Your task to perform on an android device: open app "DoorDash - Food Delivery" Image 0: 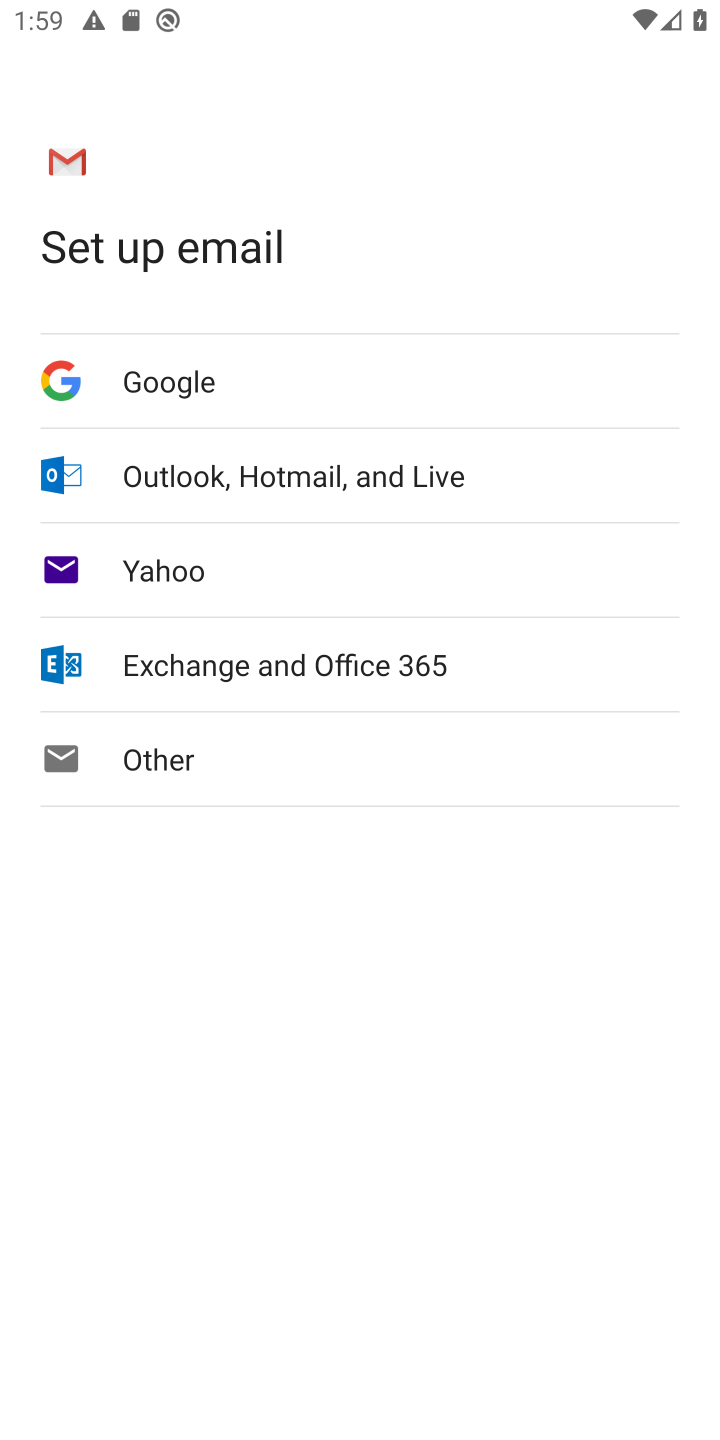
Step 0: press home button
Your task to perform on an android device: open app "DoorDash - Food Delivery" Image 1: 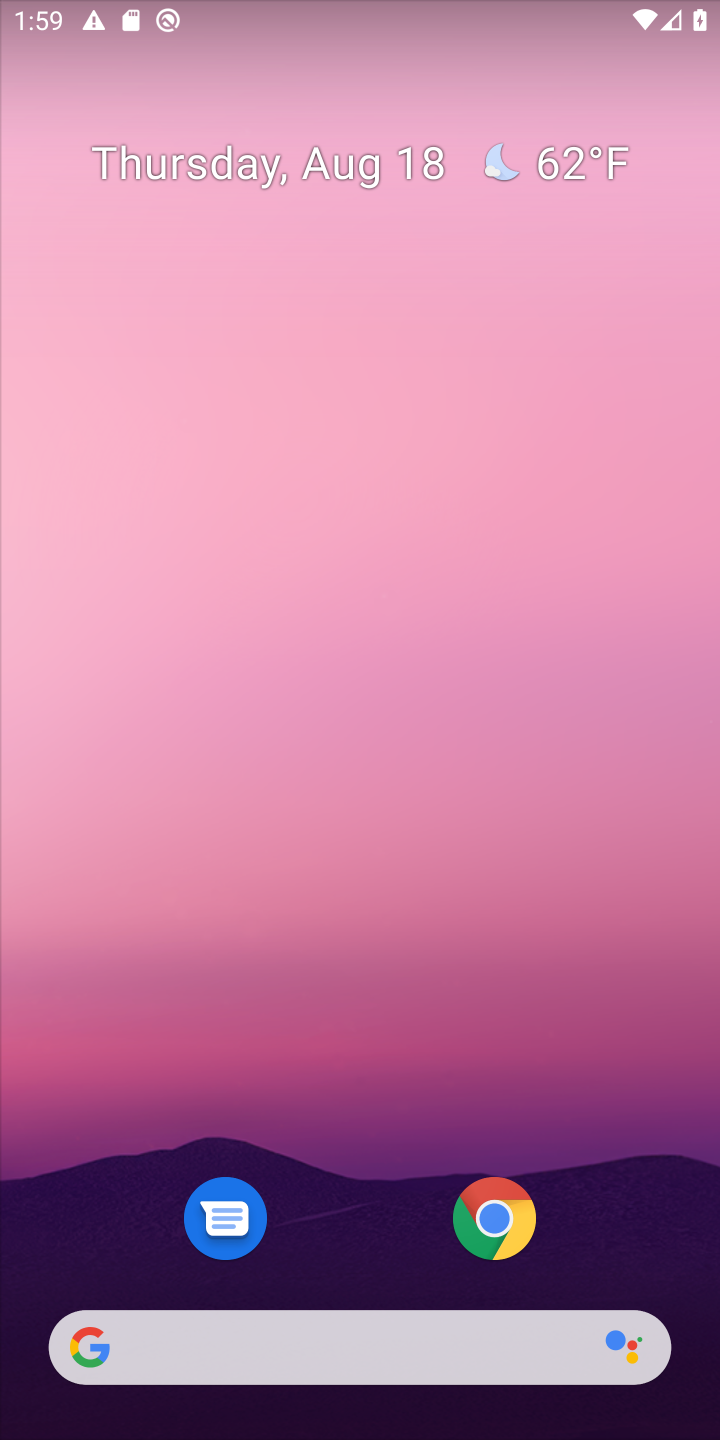
Step 1: drag from (332, 1128) to (410, 249)
Your task to perform on an android device: open app "DoorDash - Food Delivery" Image 2: 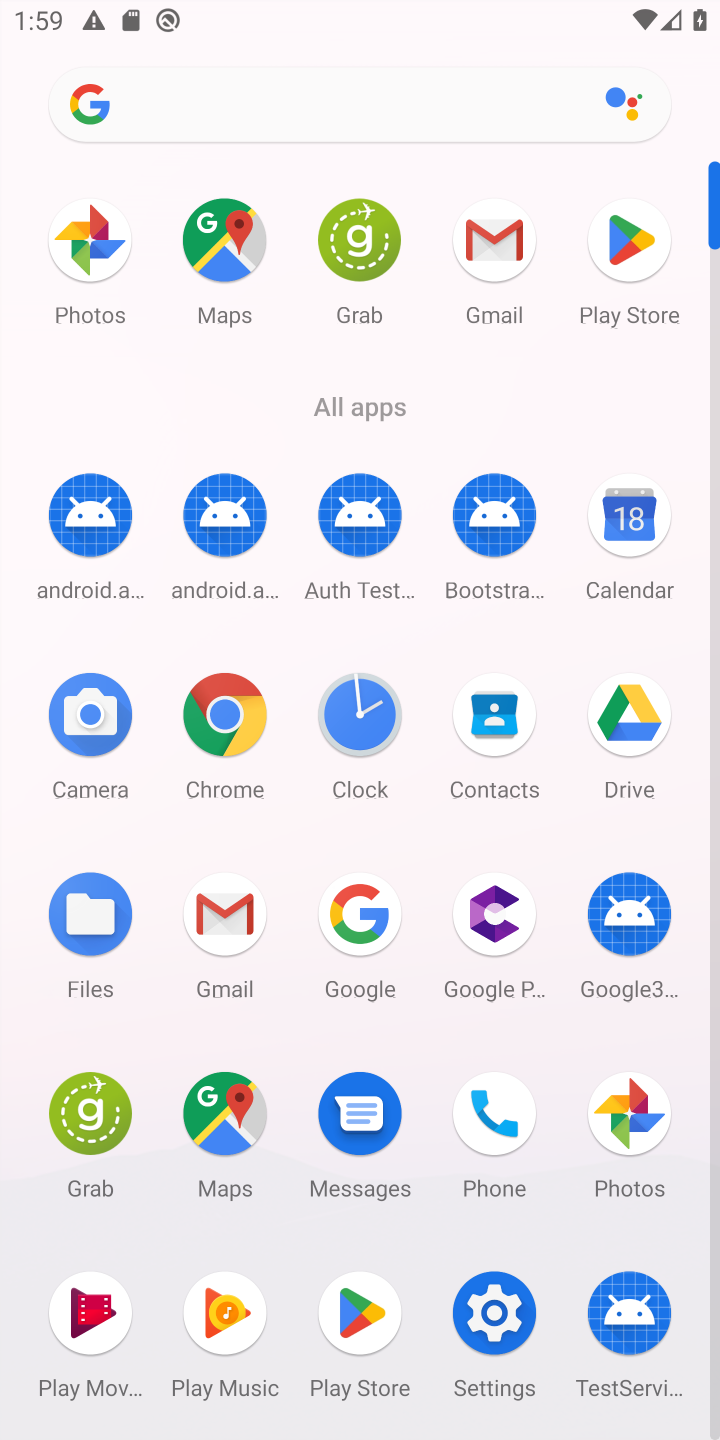
Step 2: click (639, 271)
Your task to perform on an android device: open app "DoorDash - Food Delivery" Image 3: 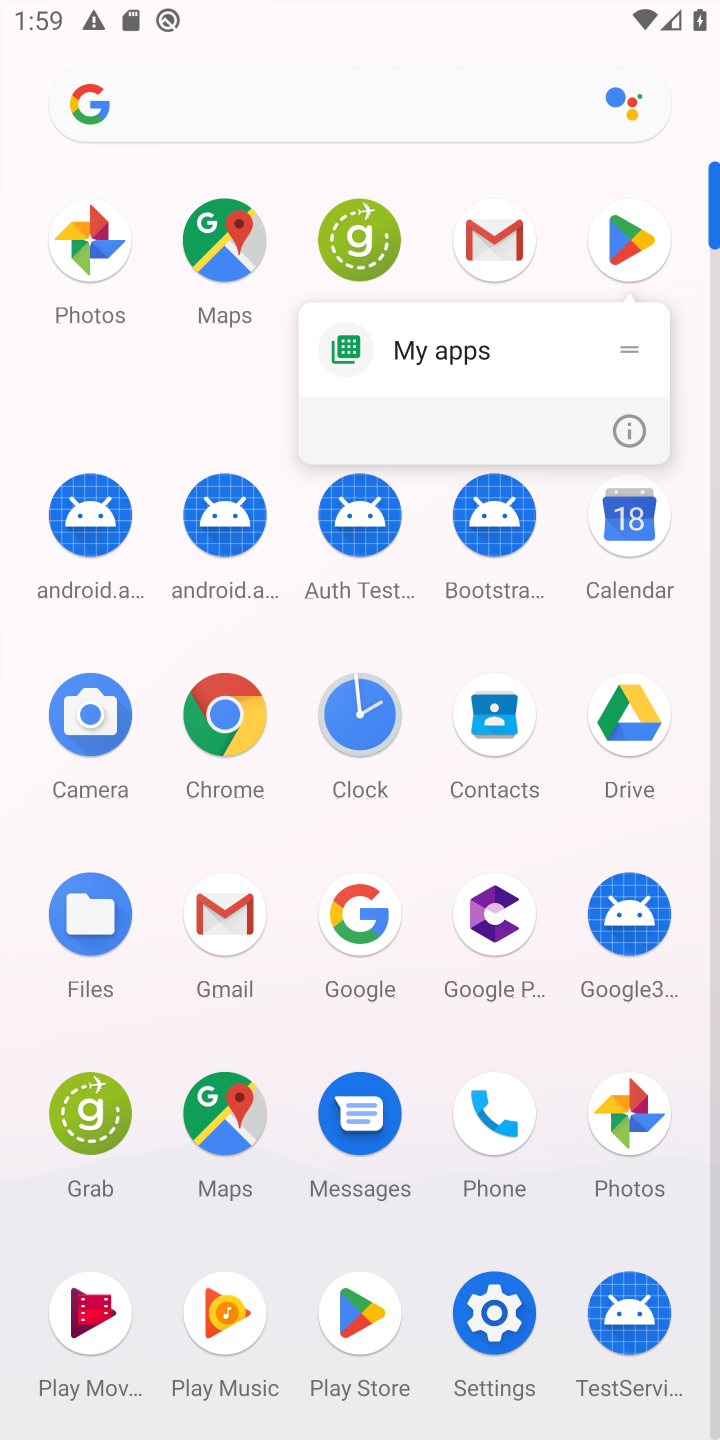
Step 3: click (617, 256)
Your task to perform on an android device: open app "DoorDash - Food Delivery" Image 4: 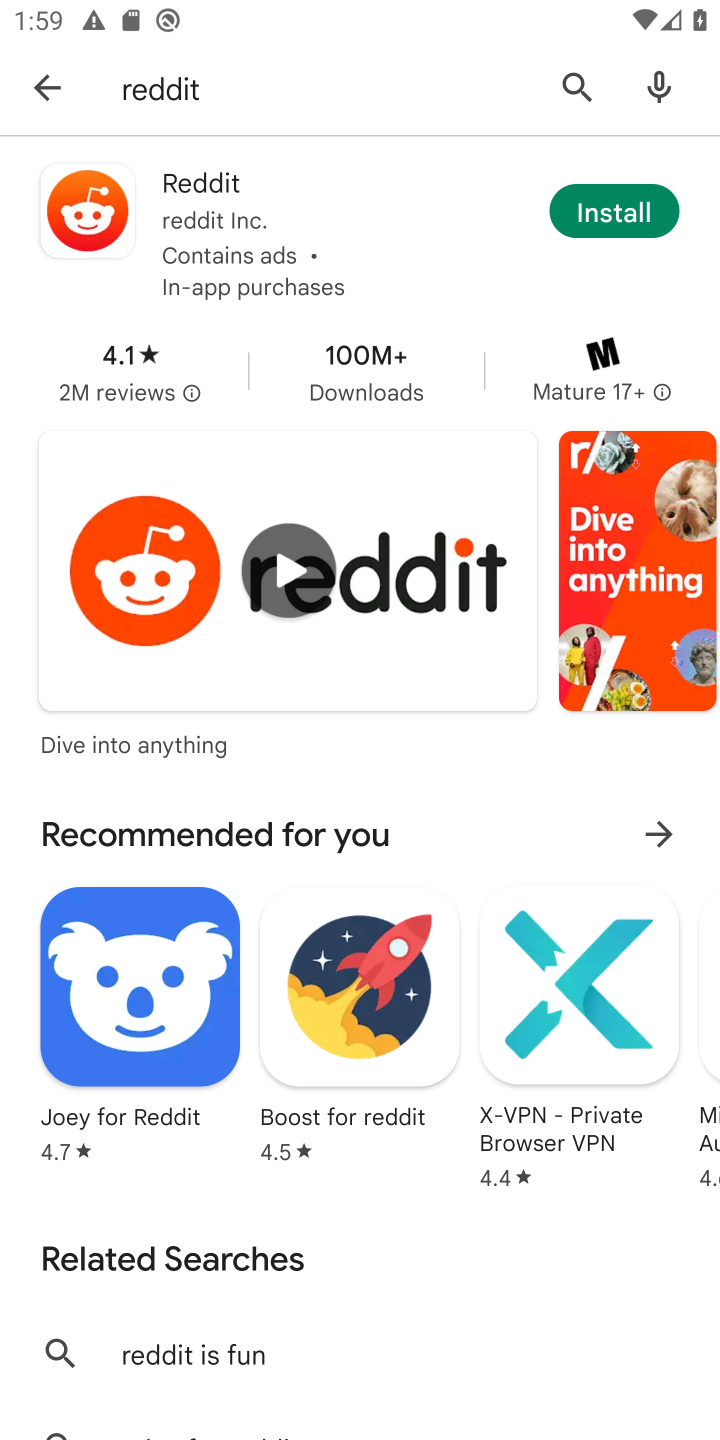
Step 4: click (566, 94)
Your task to perform on an android device: open app "DoorDash - Food Delivery" Image 5: 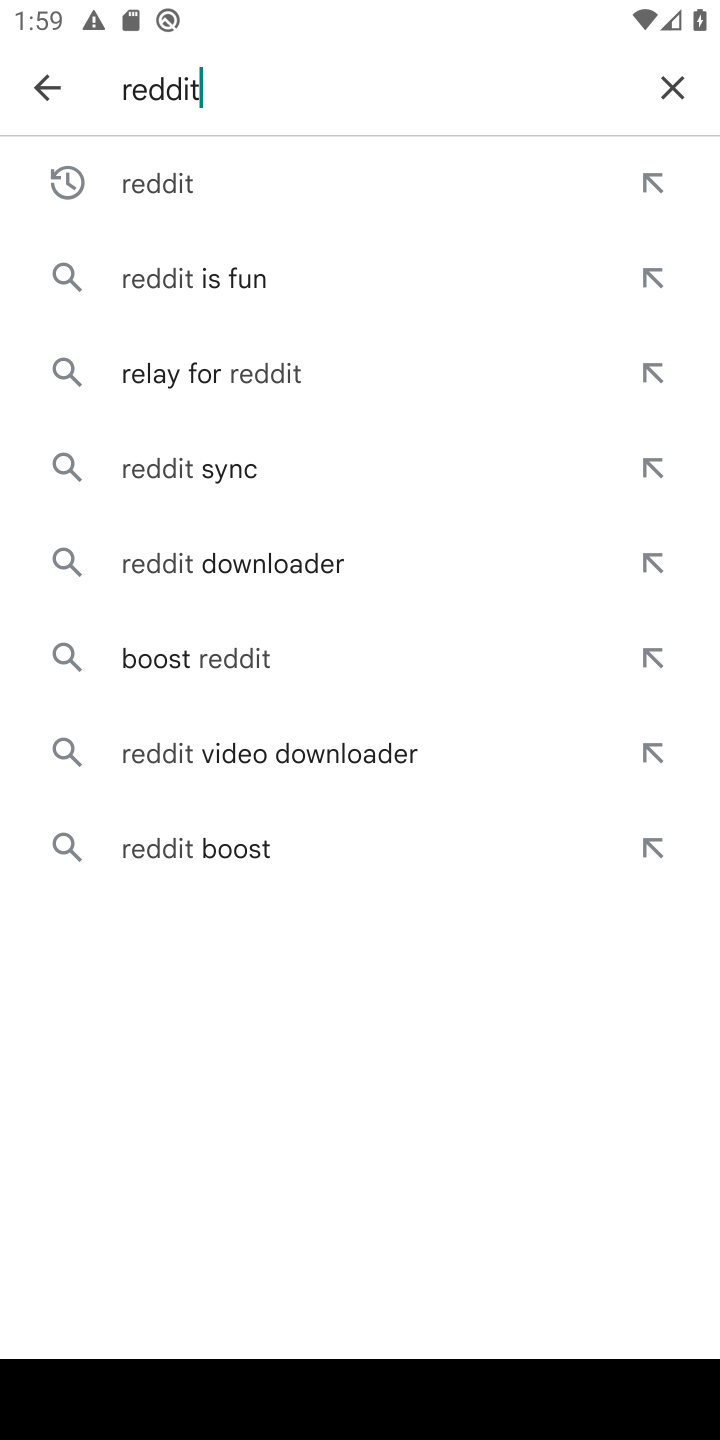
Step 5: click (659, 87)
Your task to perform on an android device: open app "DoorDash - Food Delivery" Image 6: 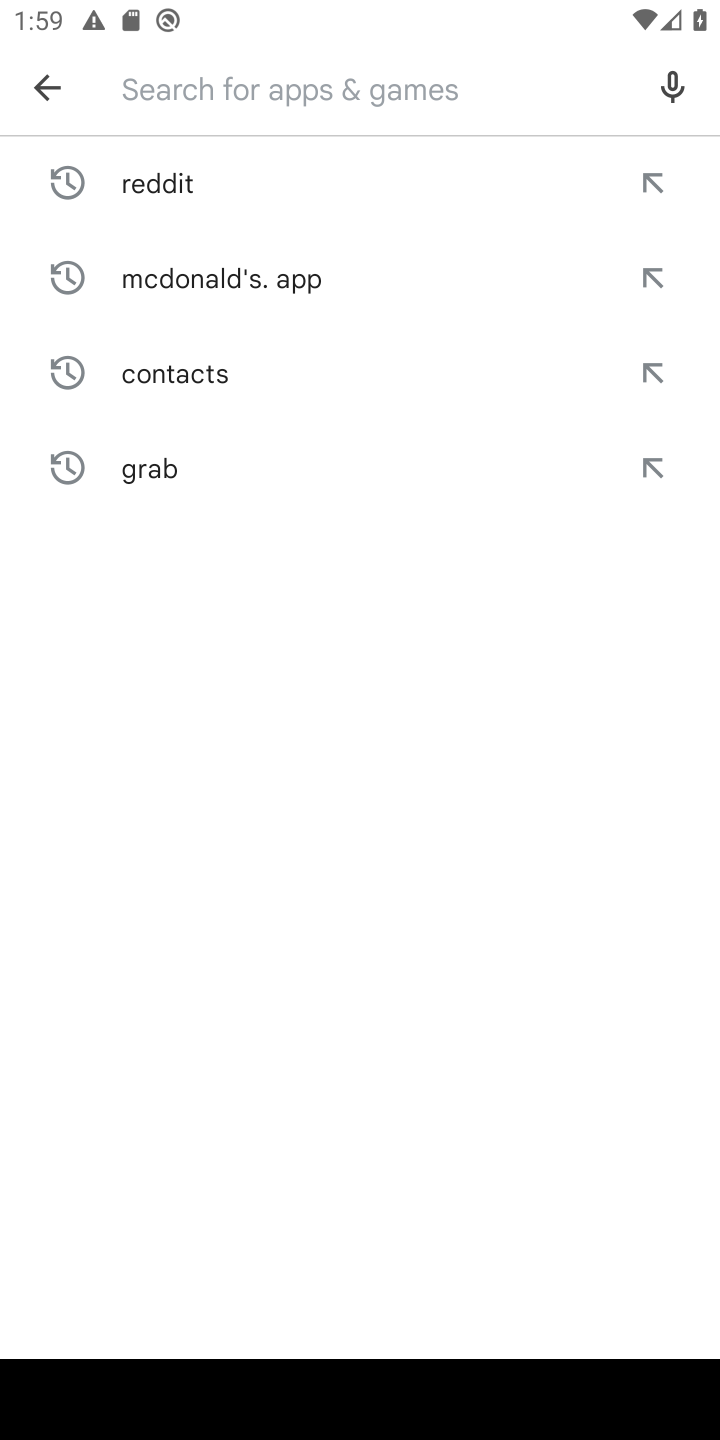
Step 6: type "DoorDash - Food Delivery"
Your task to perform on an android device: open app "DoorDash - Food Delivery" Image 7: 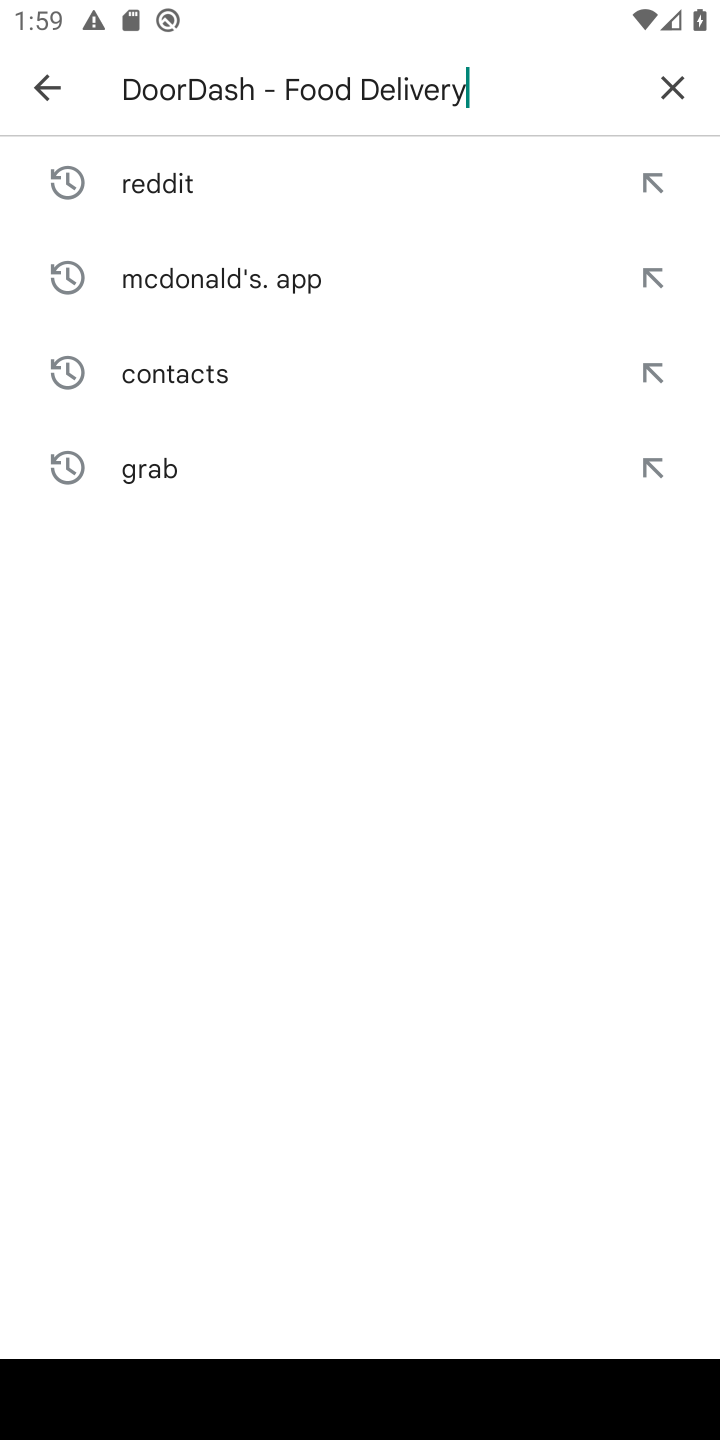
Step 7: type ""
Your task to perform on an android device: open app "DoorDash - Food Delivery" Image 8: 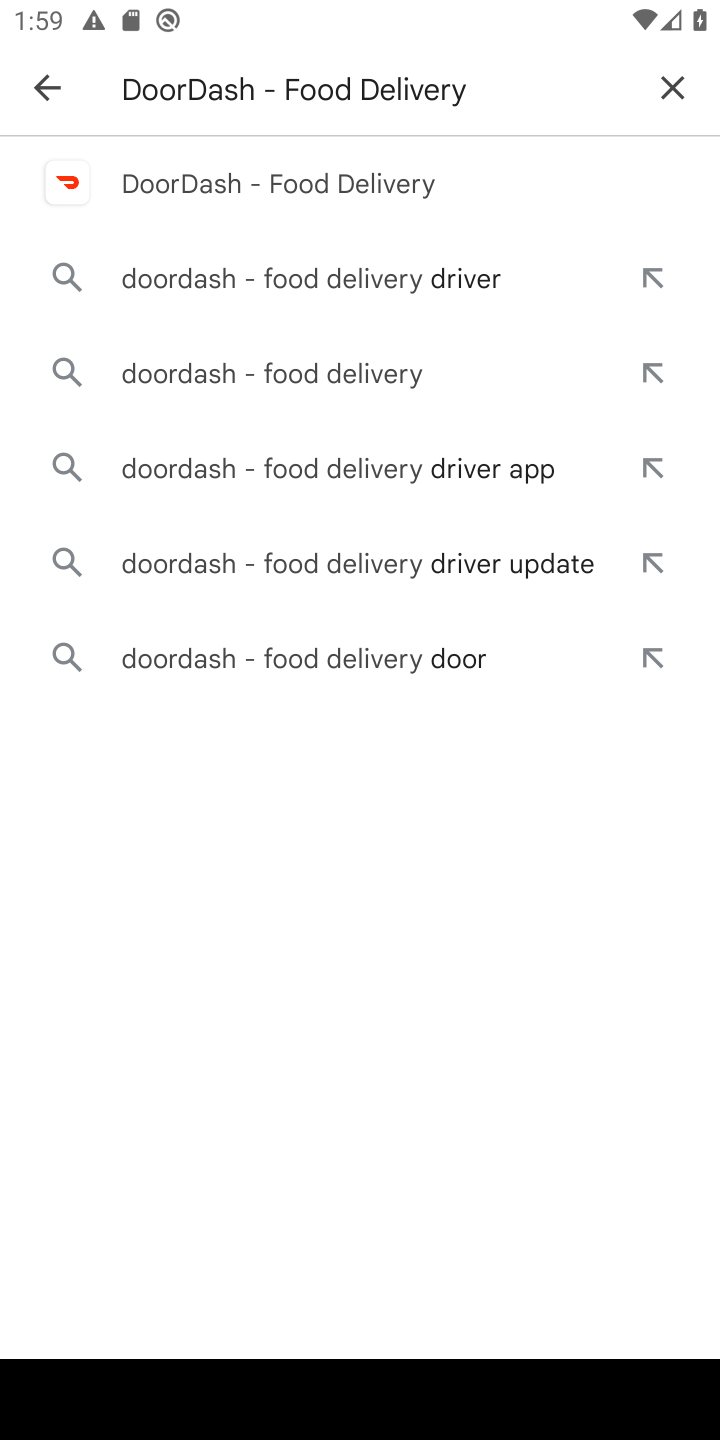
Step 8: click (232, 168)
Your task to perform on an android device: open app "DoorDash - Food Delivery" Image 9: 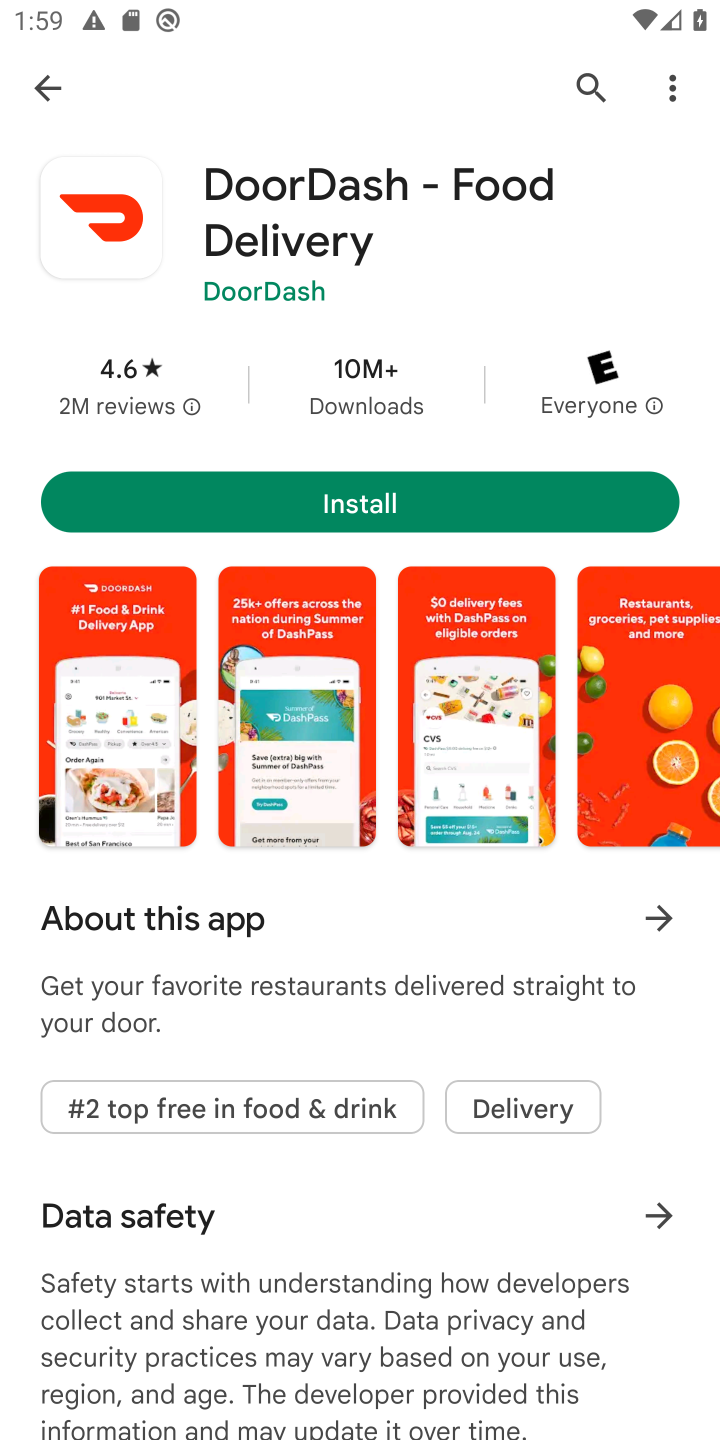
Step 9: task complete